Your task to perform on an android device: see creations saved in the google photos Image 0: 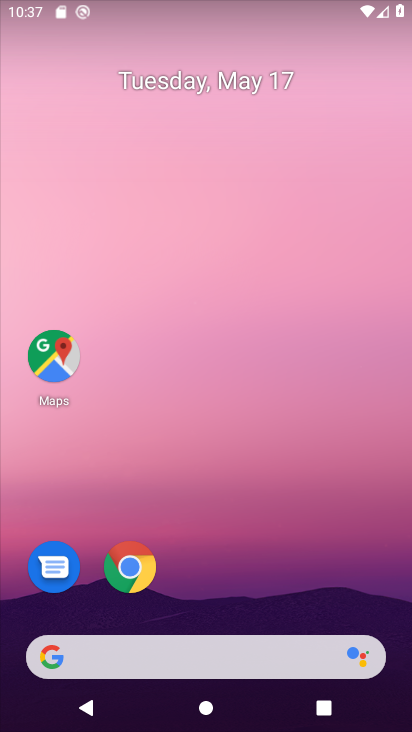
Step 0: drag from (228, 601) to (249, 107)
Your task to perform on an android device: see creations saved in the google photos Image 1: 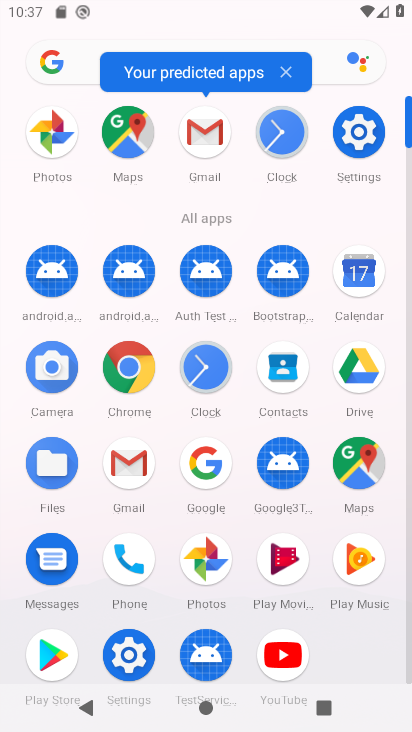
Step 1: click (189, 557)
Your task to perform on an android device: see creations saved in the google photos Image 2: 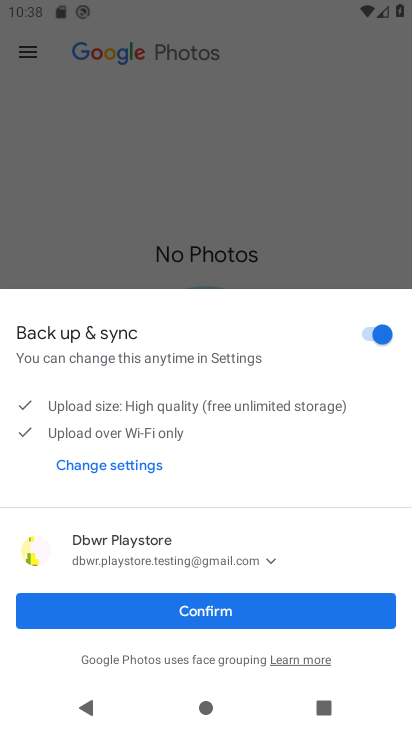
Step 2: click (206, 607)
Your task to perform on an android device: see creations saved in the google photos Image 3: 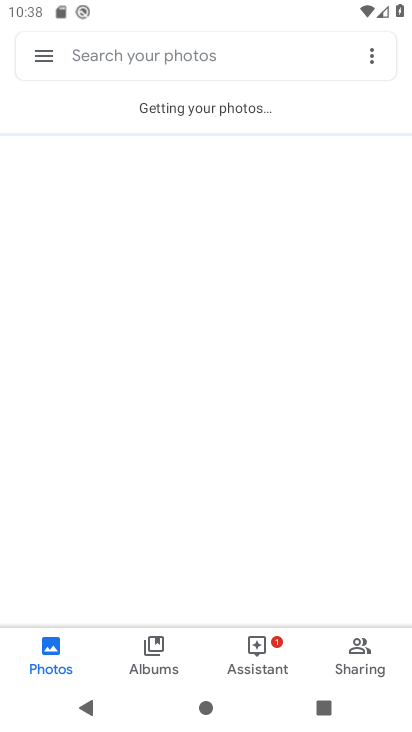
Step 3: click (43, 61)
Your task to perform on an android device: see creations saved in the google photos Image 4: 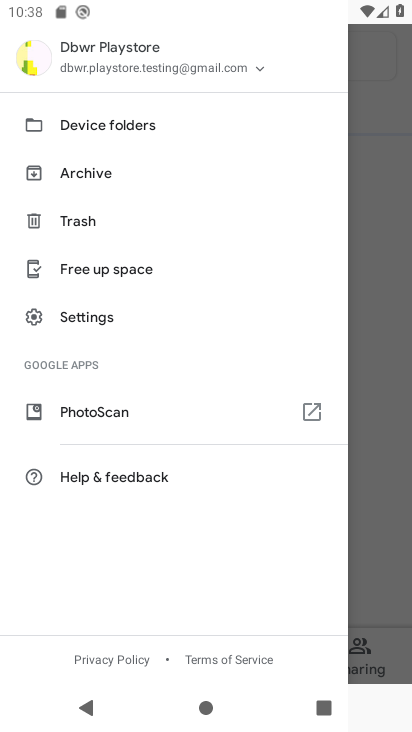
Step 4: click (102, 185)
Your task to perform on an android device: see creations saved in the google photos Image 5: 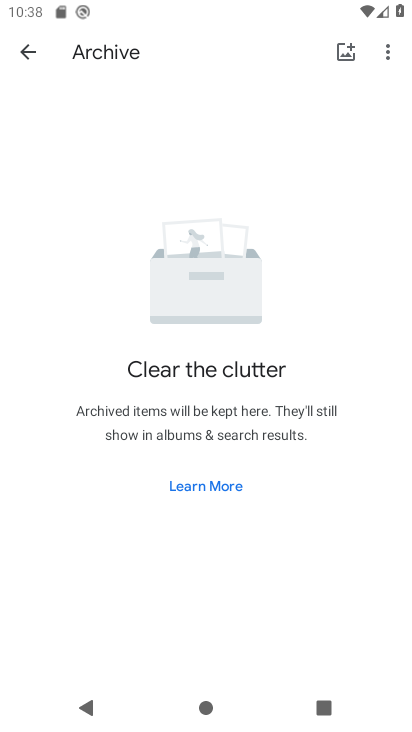
Step 5: task complete